Your task to perform on an android device: Open display settings Image 0: 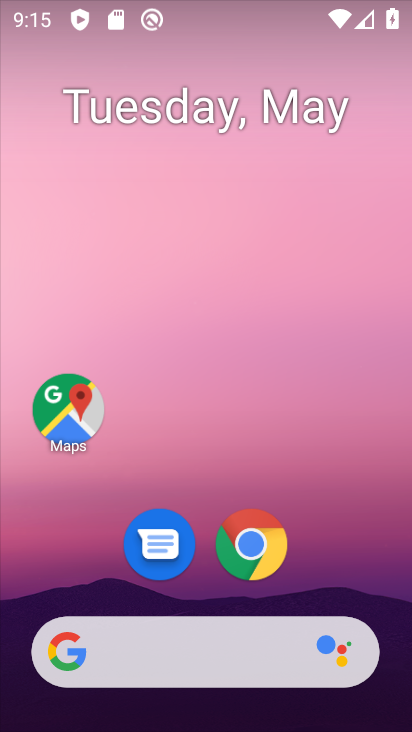
Step 0: press home button
Your task to perform on an android device: Open display settings Image 1: 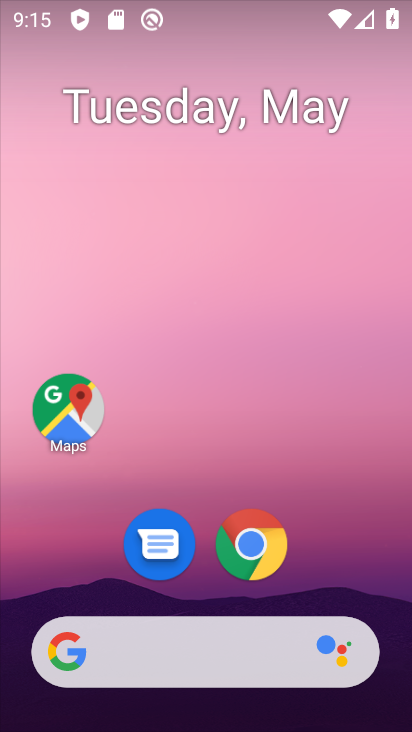
Step 1: drag from (335, 545) to (307, 181)
Your task to perform on an android device: Open display settings Image 2: 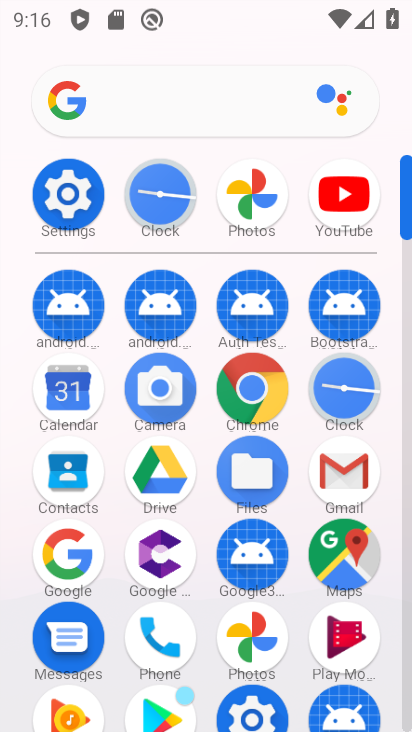
Step 2: click (71, 206)
Your task to perform on an android device: Open display settings Image 3: 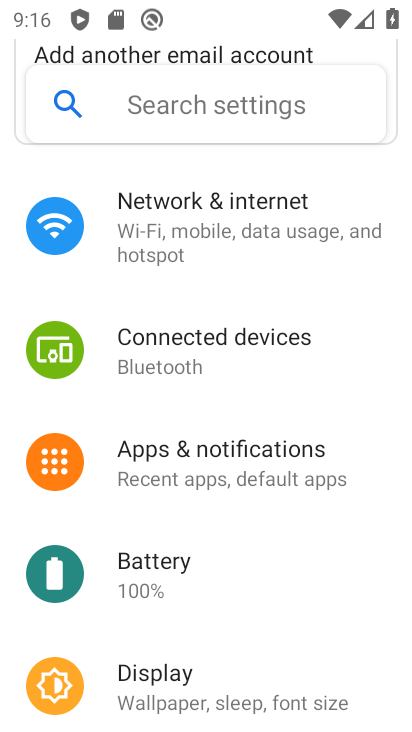
Step 3: drag from (231, 581) to (265, 350)
Your task to perform on an android device: Open display settings Image 4: 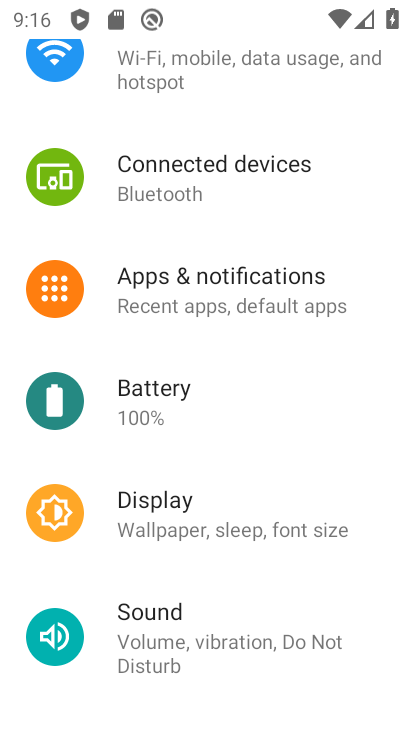
Step 4: click (255, 529)
Your task to perform on an android device: Open display settings Image 5: 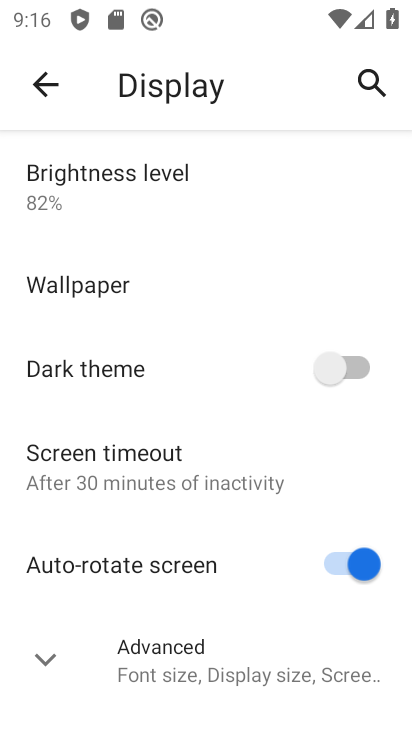
Step 5: task complete